Your task to perform on an android device: Open wifi settings Image 0: 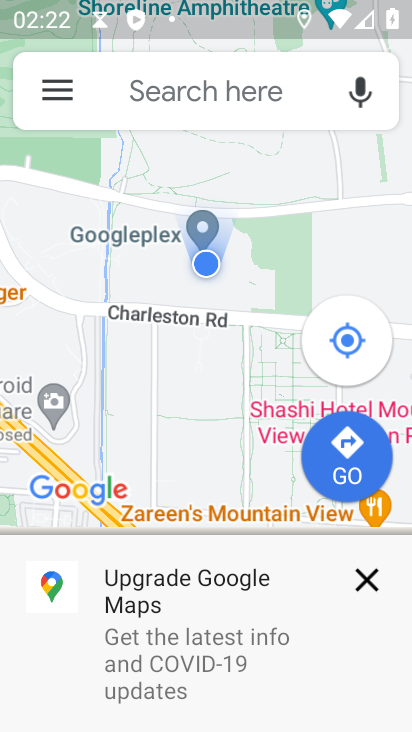
Step 0: press home button
Your task to perform on an android device: Open wifi settings Image 1: 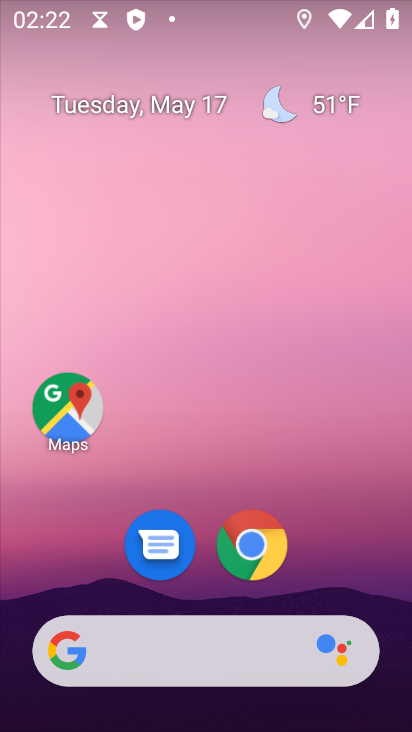
Step 1: drag from (210, 559) to (257, 79)
Your task to perform on an android device: Open wifi settings Image 2: 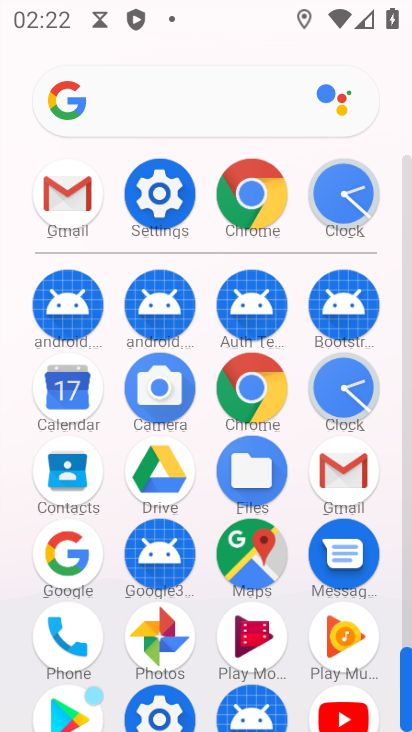
Step 2: click (165, 211)
Your task to perform on an android device: Open wifi settings Image 3: 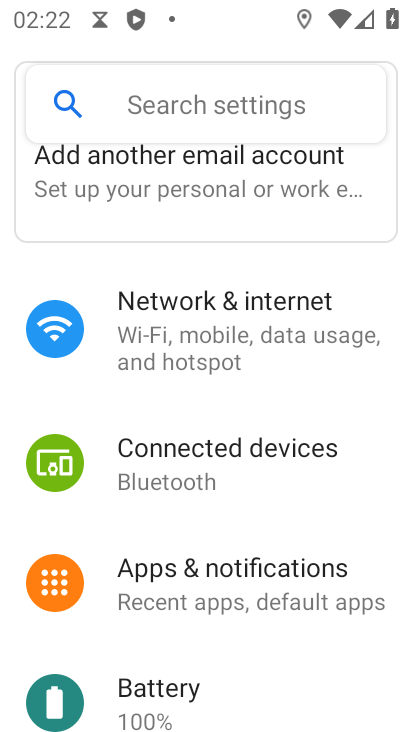
Step 3: click (169, 324)
Your task to perform on an android device: Open wifi settings Image 4: 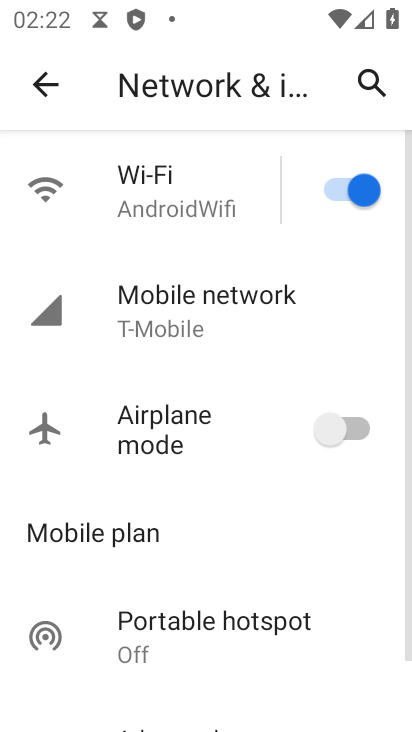
Step 4: click (191, 203)
Your task to perform on an android device: Open wifi settings Image 5: 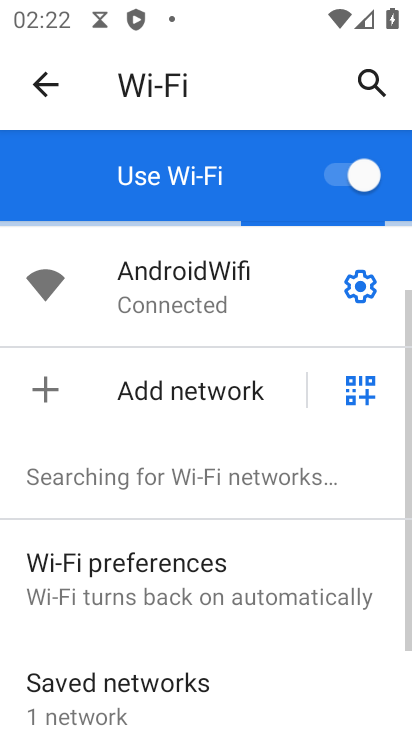
Step 5: task complete